Your task to perform on an android device: Open Google Chrome and click the shortcut for Amazon.com Image 0: 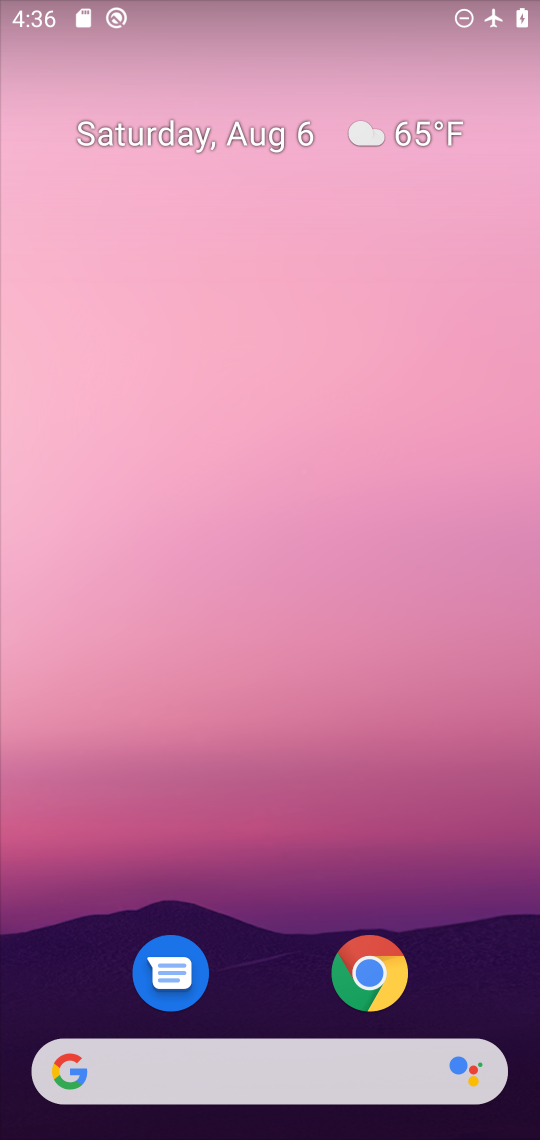
Step 0: drag from (336, 475) to (392, 190)
Your task to perform on an android device: Open Google Chrome and click the shortcut for Amazon.com Image 1: 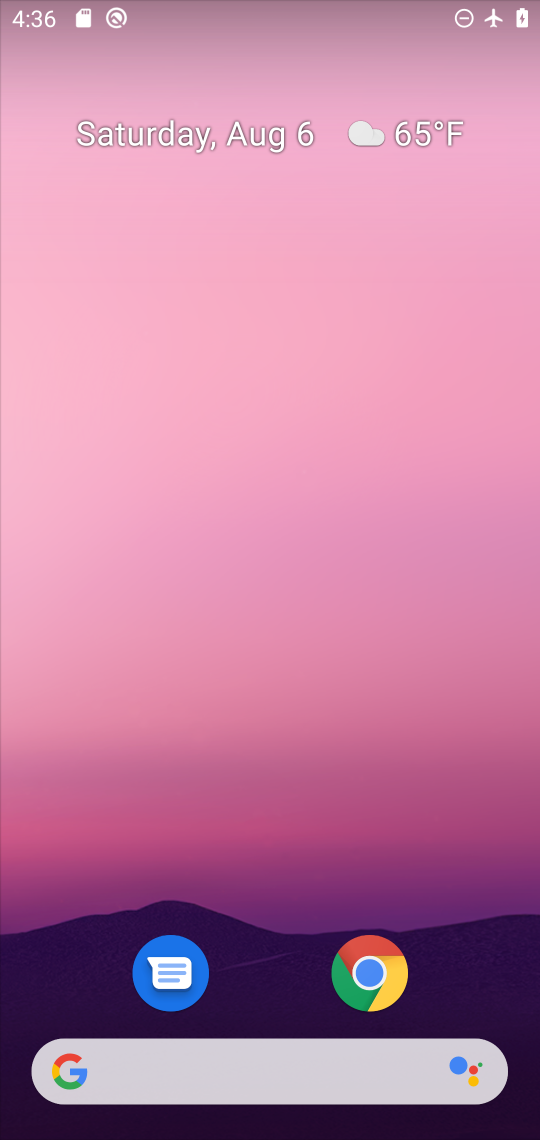
Step 1: drag from (297, 799) to (363, 248)
Your task to perform on an android device: Open Google Chrome and click the shortcut for Amazon.com Image 2: 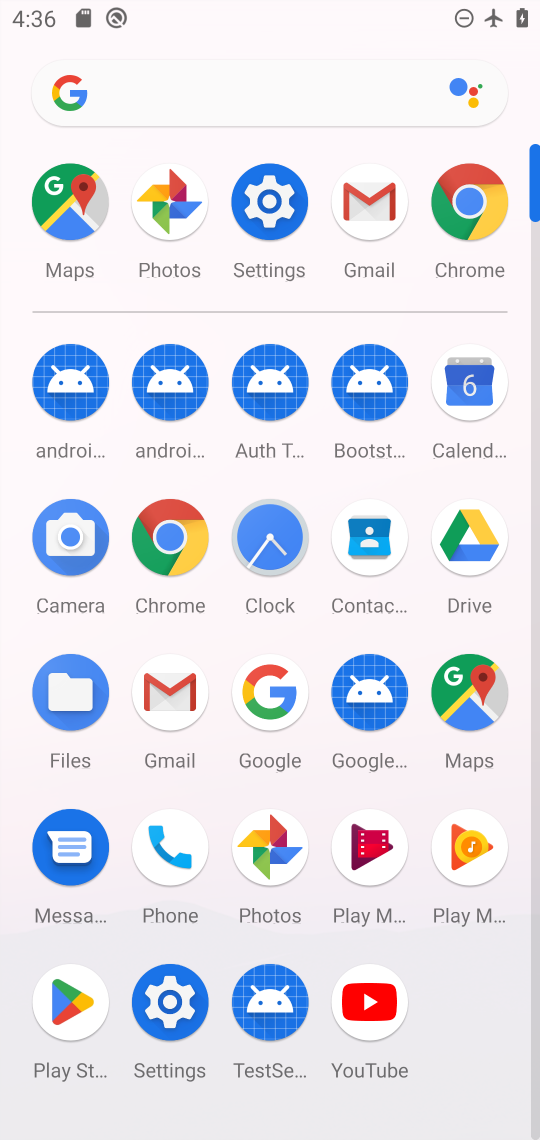
Step 2: click (176, 541)
Your task to perform on an android device: Open Google Chrome and click the shortcut for Amazon.com Image 3: 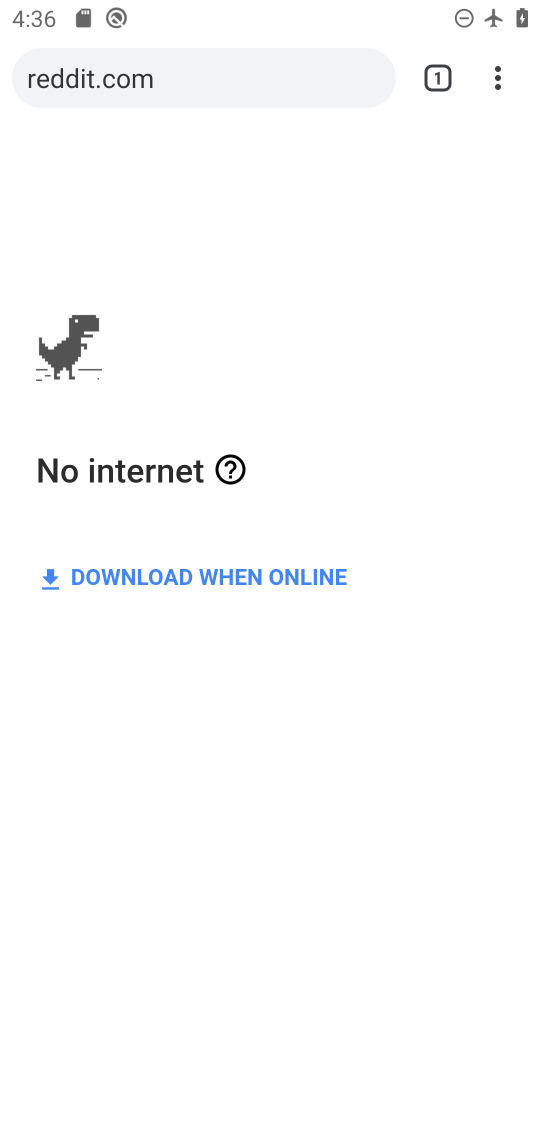
Step 3: drag from (501, 74) to (340, 148)
Your task to perform on an android device: Open Google Chrome and click the shortcut for Amazon.com Image 4: 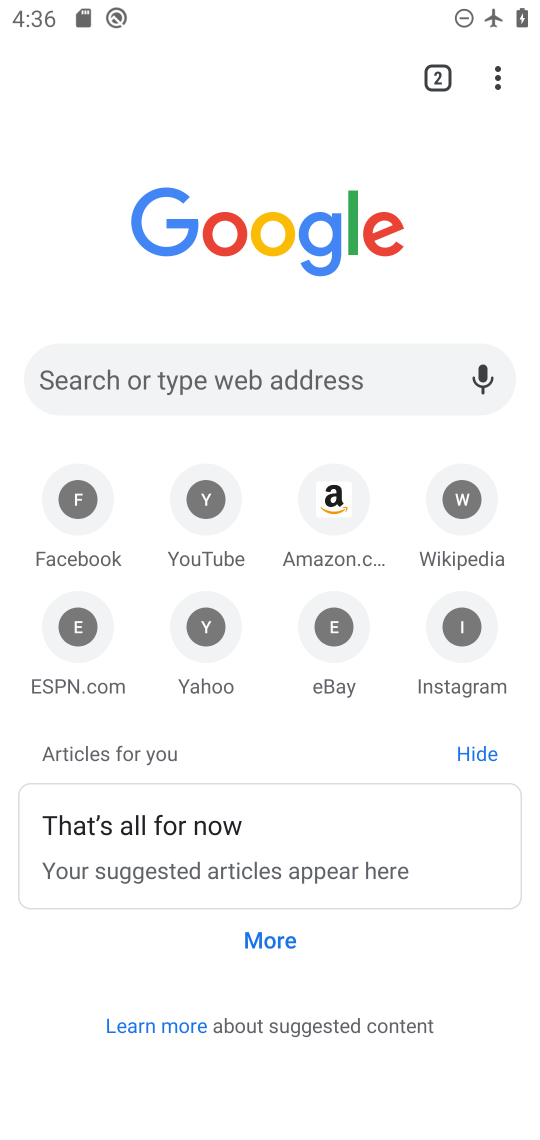
Step 4: click (361, 509)
Your task to perform on an android device: Open Google Chrome and click the shortcut for Amazon.com Image 5: 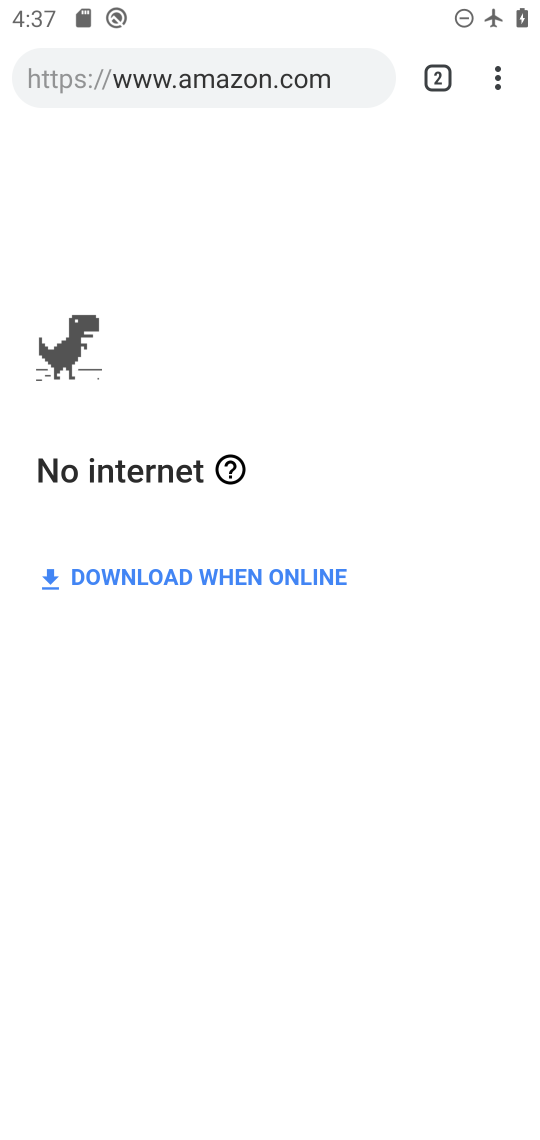
Step 5: task complete